Your task to perform on an android device: open the mobile data screen to see how much data has been used Image 0: 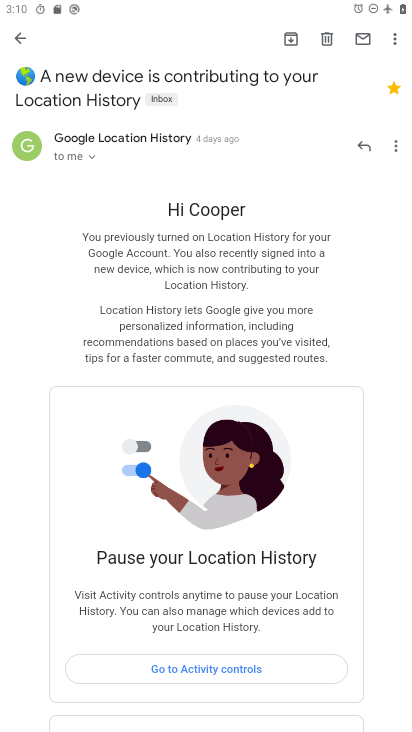
Step 0: drag from (191, 611) to (178, 363)
Your task to perform on an android device: open the mobile data screen to see how much data has been used Image 1: 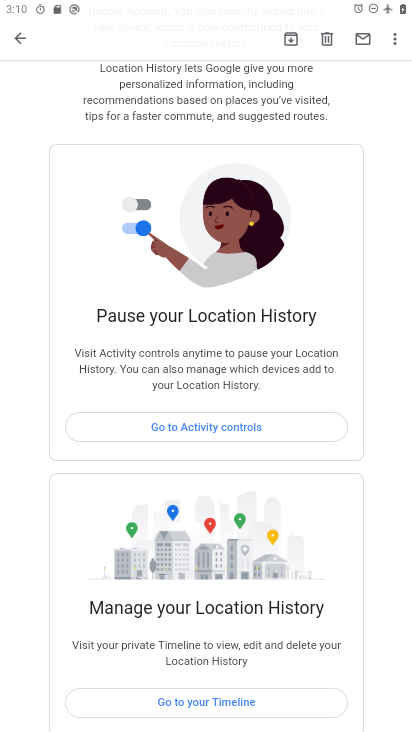
Step 1: click (378, 550)
Your task to perform on an android device: open the mobile data screen to see how much data has been used Image 2: 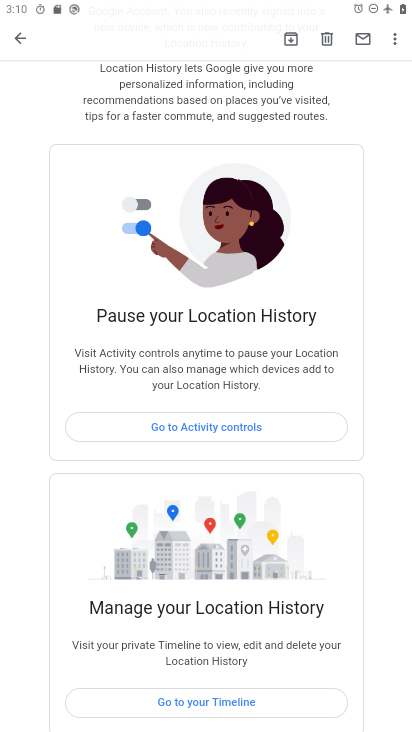
Step 2: press home button
Your task to perform on an android device: open the mobile data screen to see how much data has been used Image 3: 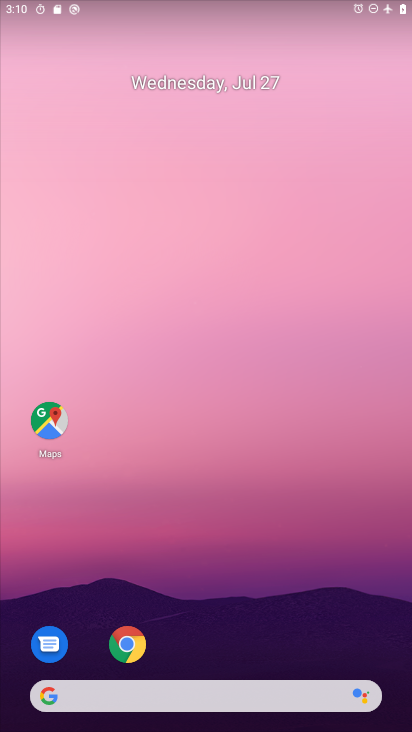
Step 3: drag from (220, 567) to (271, 123)
Your task to perform on an android device: open the mobile data screen to see how much data has been used Image 4: 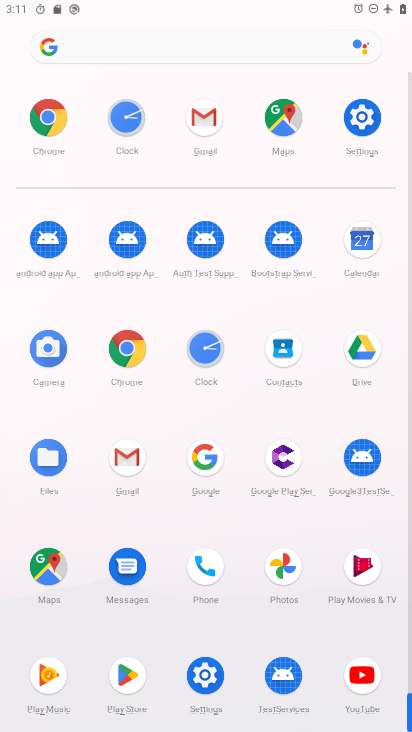
Step 4: click (364, 117)
Your task to perform on an android device: open the mobile data screen to see how much data has been used Image 5: 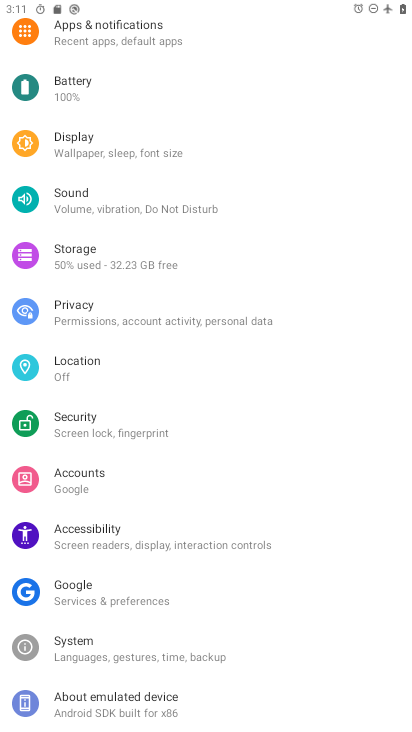
Step 5: drag from (107, 107) to (252, 678)
Your task to perform on an android device: open the mobile data screen to see how much data has been used Image 6: 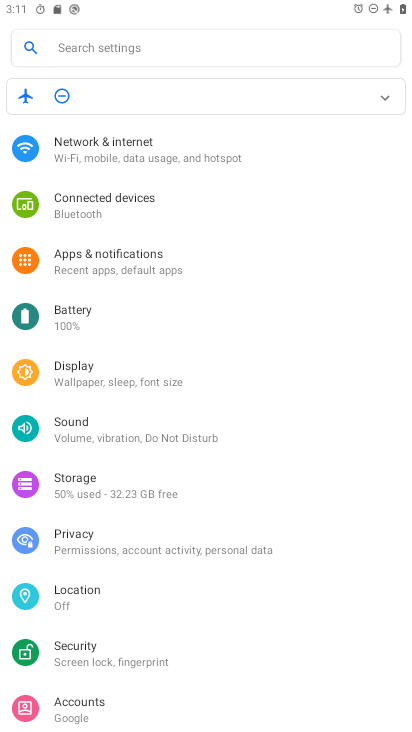
Step 6: click (152, 160)
Your task to perform on an android device: open the mobile data screen to see how much data has been used Image 7: 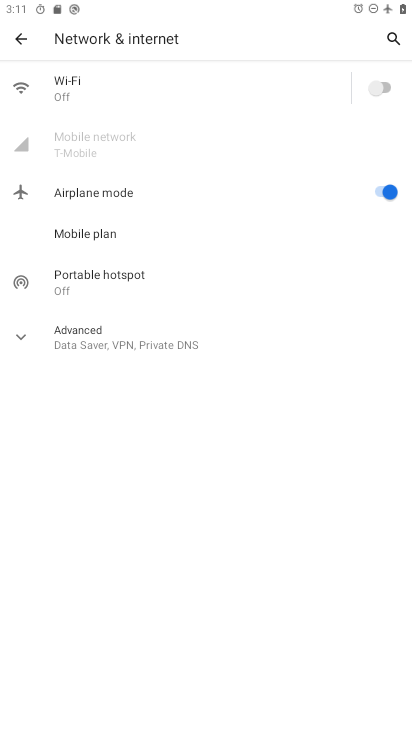
Step 7: click (159, 153)
Your task to perform on an android device: open the mobile data screen to see how much data has been used Image 8: 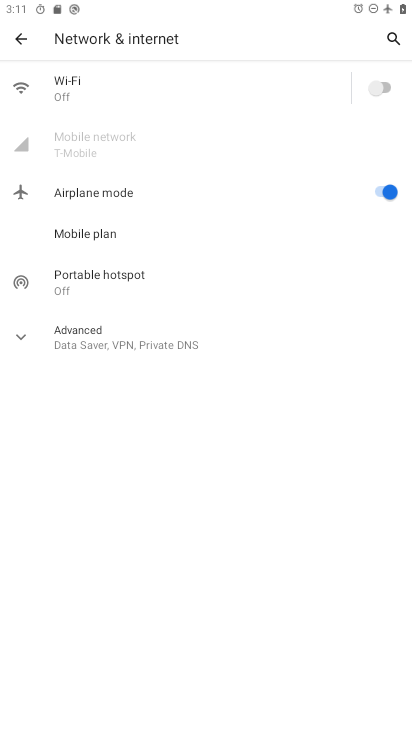
Step 8: task complete